Your task to perform on an android device: turn on javascript in the chrome app Image 0: 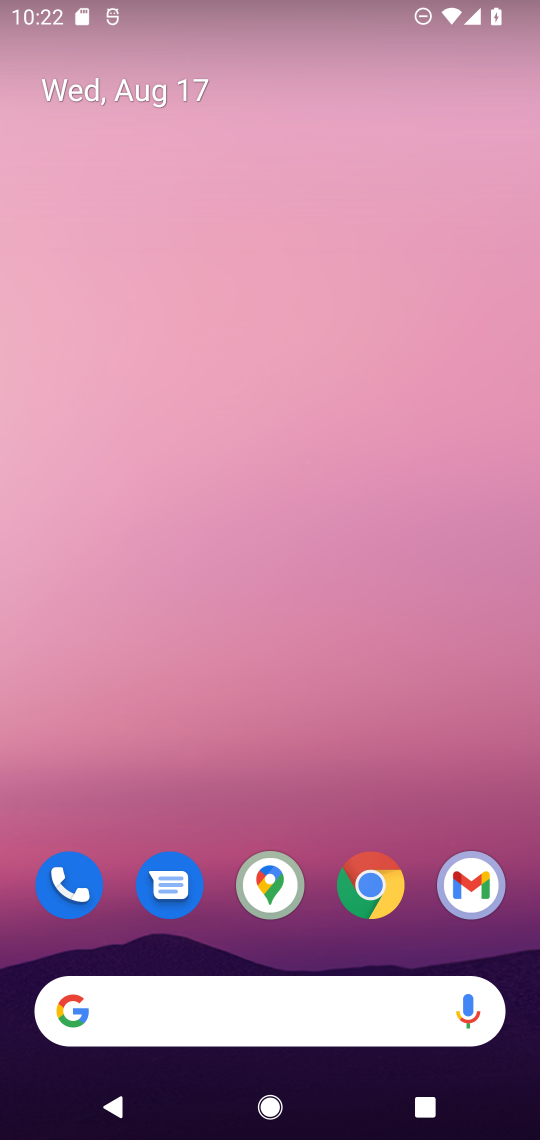
Step 0: click (364, 886)
Your task to perform on an android device: turn on javascript in the chrome app Image 1: 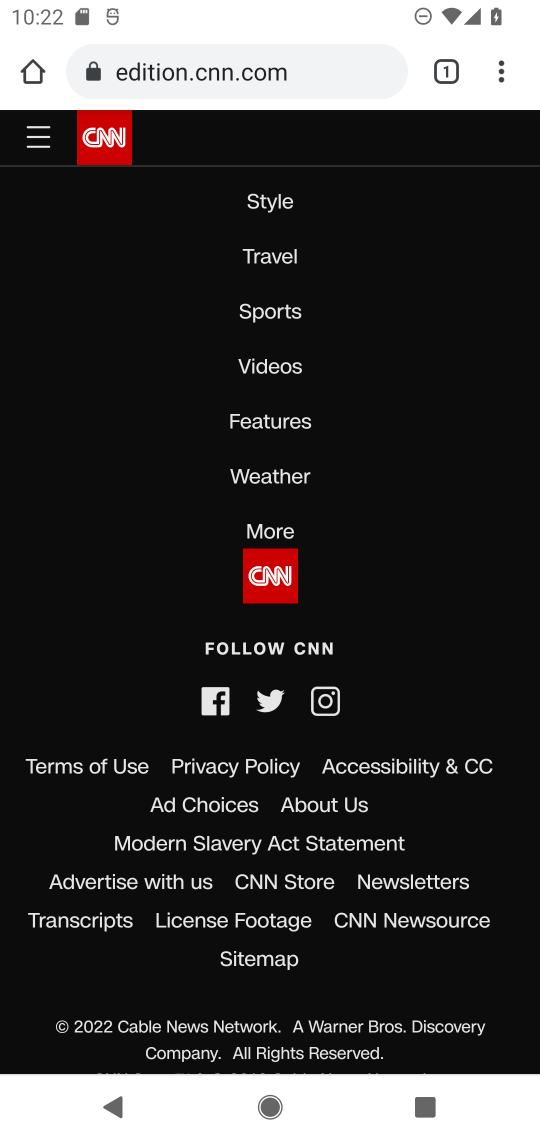
Step 1: click (492, 78)
Your task to perform on an android device: turn on javascript in the chrome app Image 2: 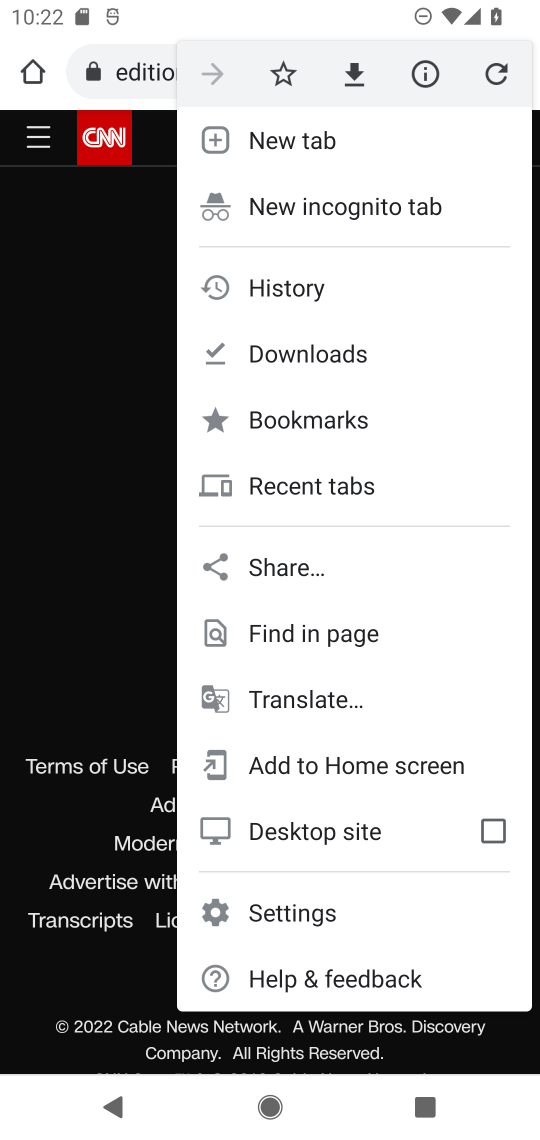
Step 2: click (297, 917)
Your task to perform on an android device: turn on javascript in the chrome app Image 3: 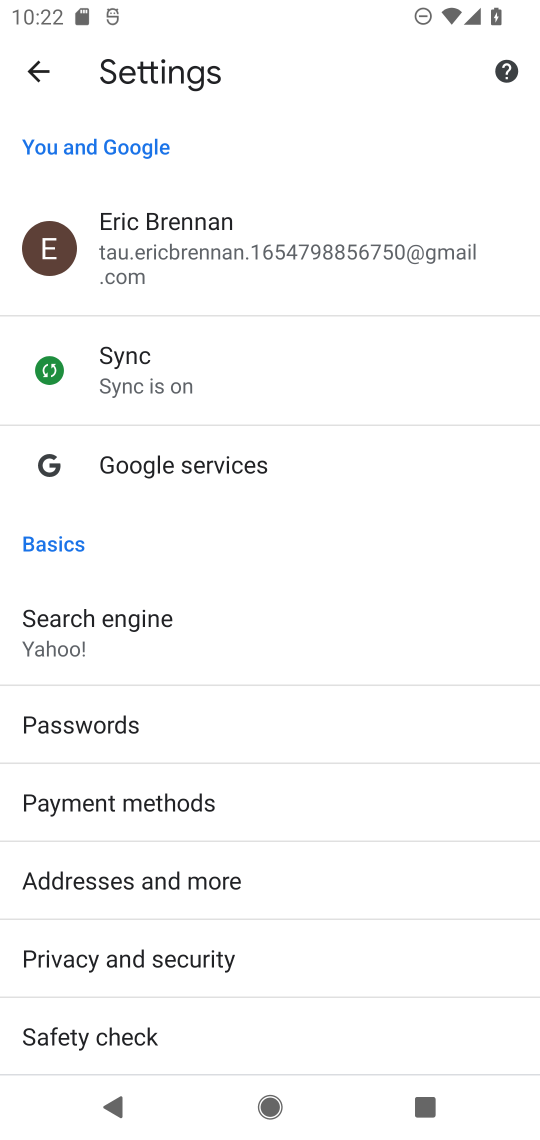
Step 3: drag from (314, 989) to (323, 341)
Your task to perform on an android device: turn on javascript in the chrome app Image 4: 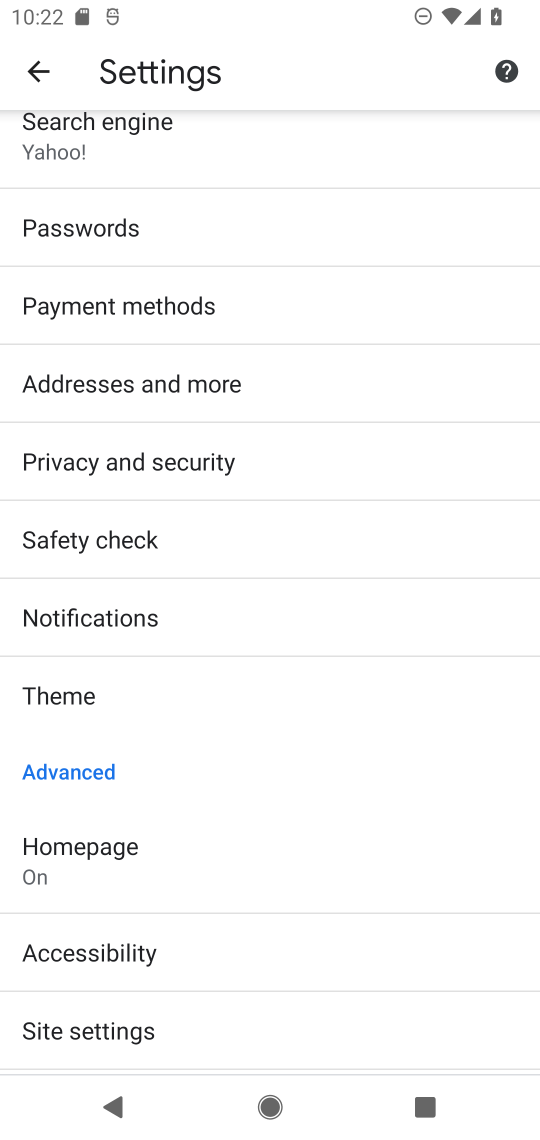
Step 4: drag from (291, 958) to (310, 240)
Your task to perform on an android device: turn on javascript in the chrome app Image 5: 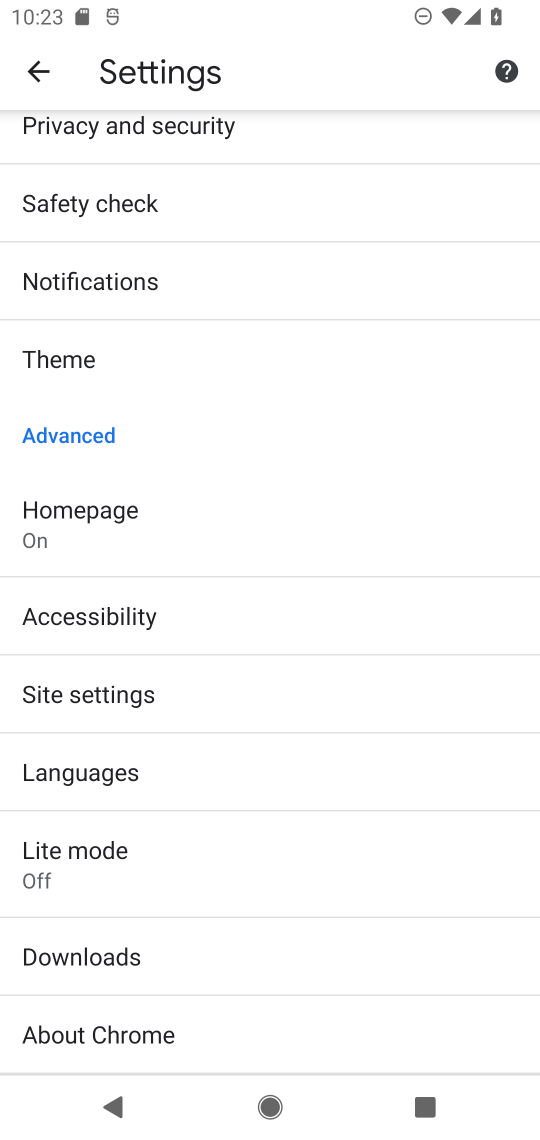
Step 5: click (71, 693)
Your task to perform on an android device: turn on javascript in the chrome app Image 6: 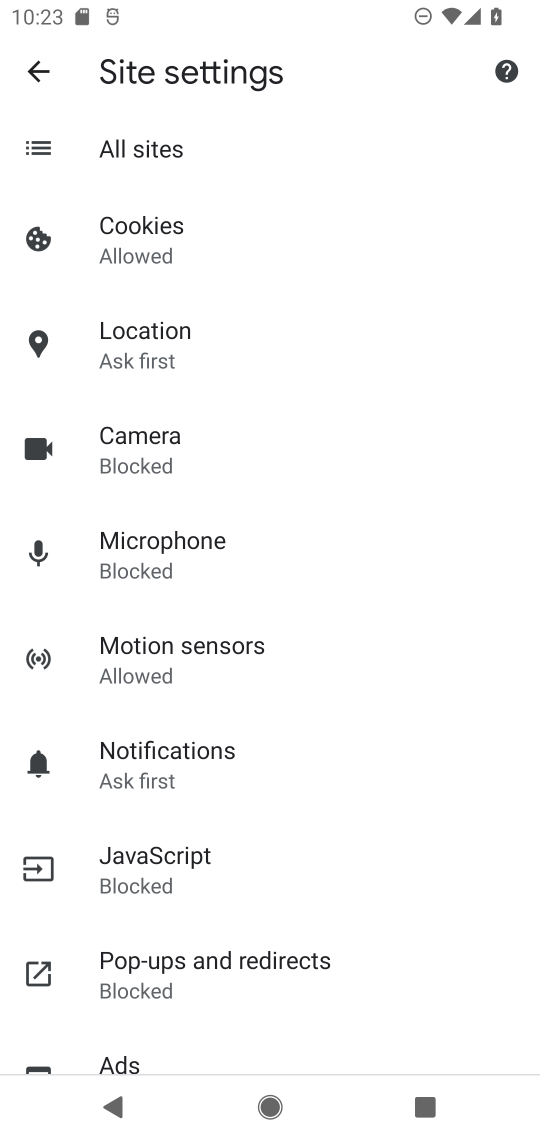
Step 6: click (132, 871)
Your task to perform on an android device: turn on javascript in the chrome app Image 7: 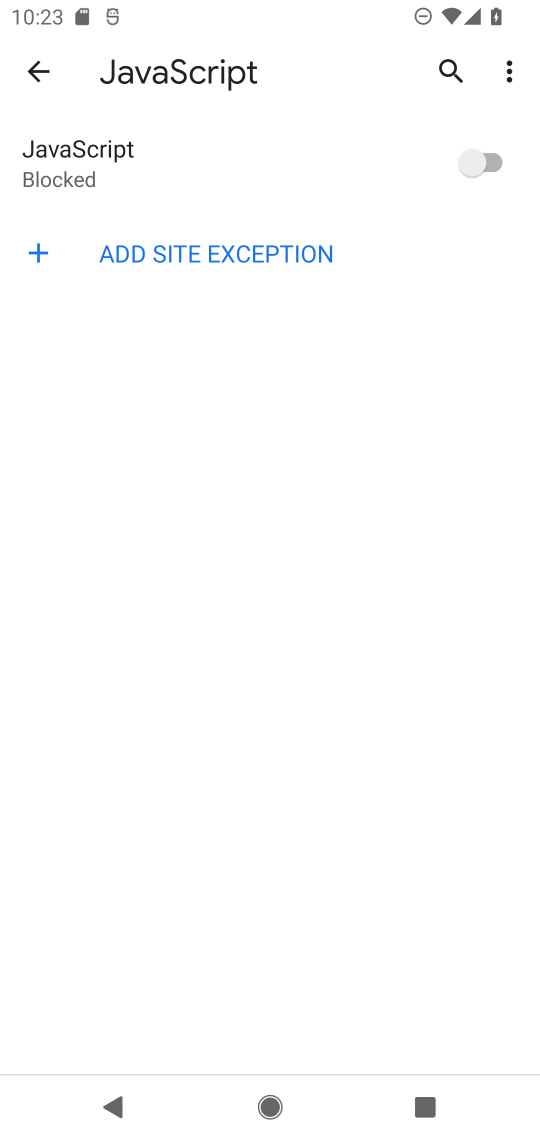
Step 7: click (493, 153)
Your task to perform on an android device: turn on javascript in the chrome app Image 8: 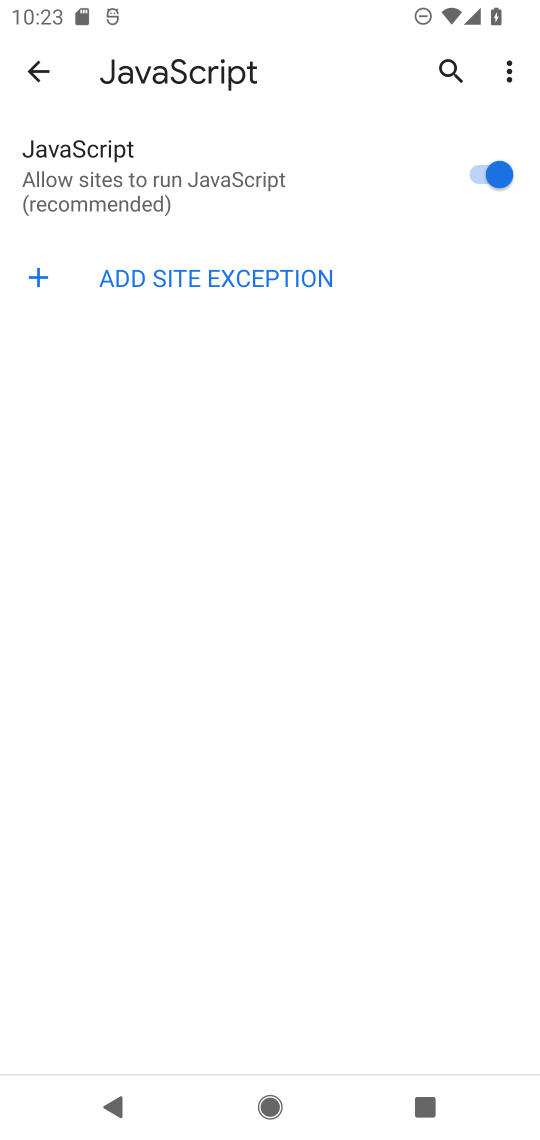
Step 8: task complete